Your task to perform on an android device: open app "Spotify" (install if not already installed) and enter user name: "infallible@icloud.com" and password: "implored" Image 0: 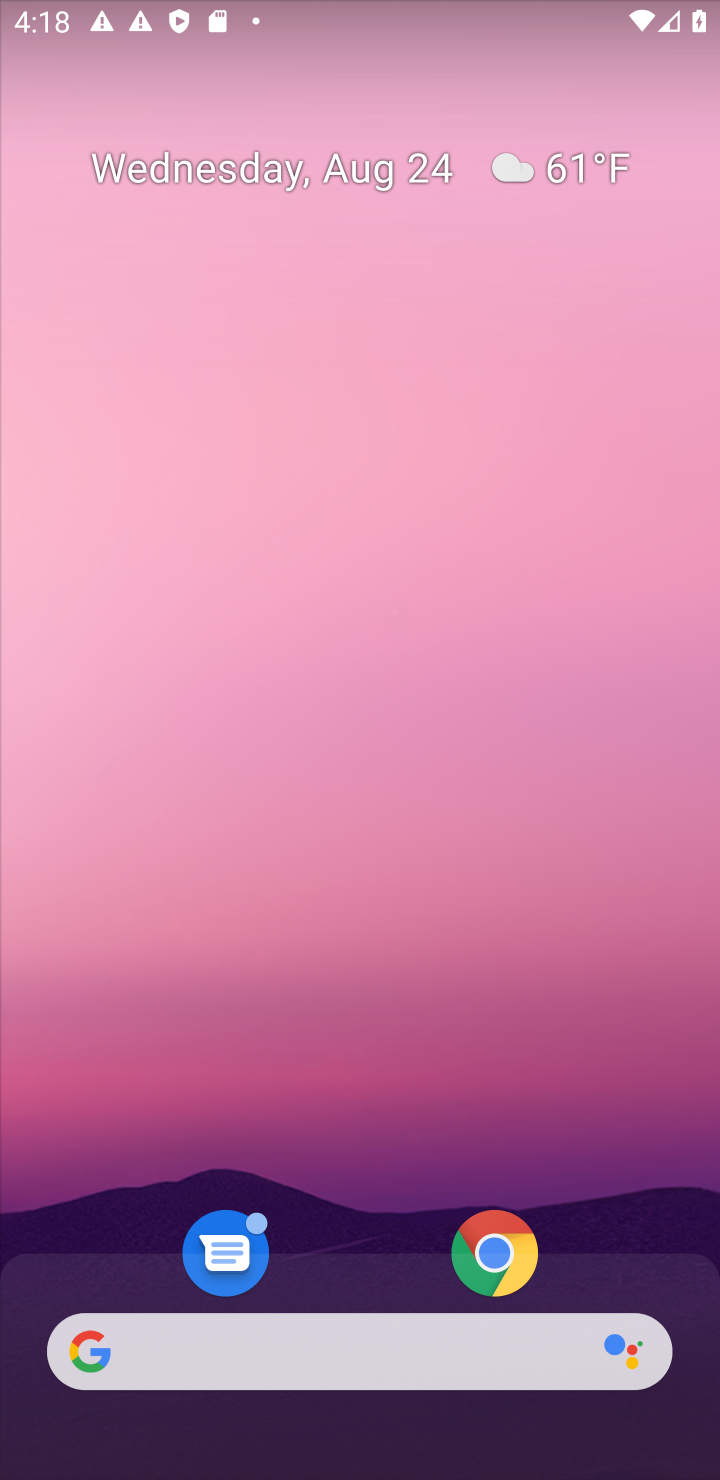
Step 0: drag from (376, 800) to (374, 251)
Your task to perform on an android device: open app "Spotify" (install if not already installed) and enter user name: "infallible@icloud.com" and password: "implored" Image 1: 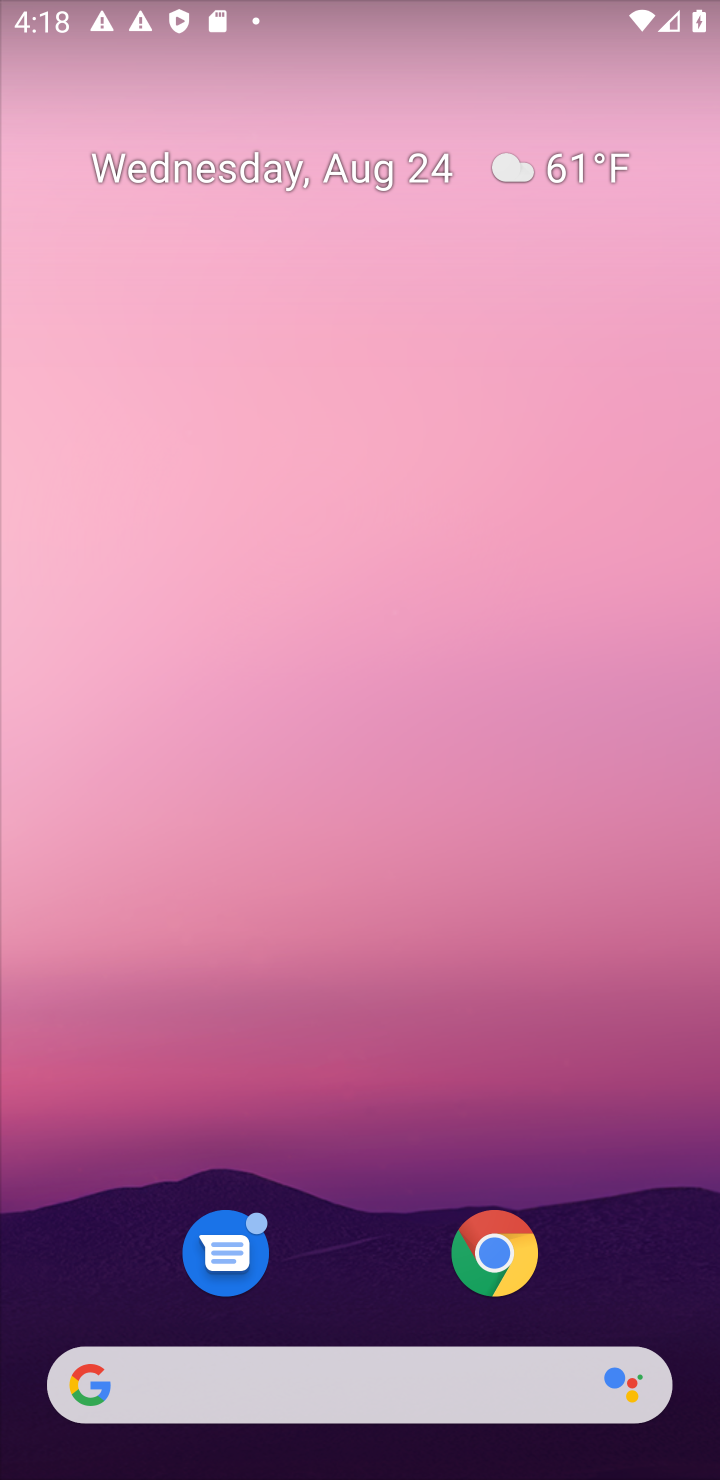
Step 1: drag from (331, 1279) to (424, 54)
Your task to perform on an android device: open app "Spotify" (install if not already installed) and enter user name: "infallible@icloud.com" and password: "implored" Image 2: 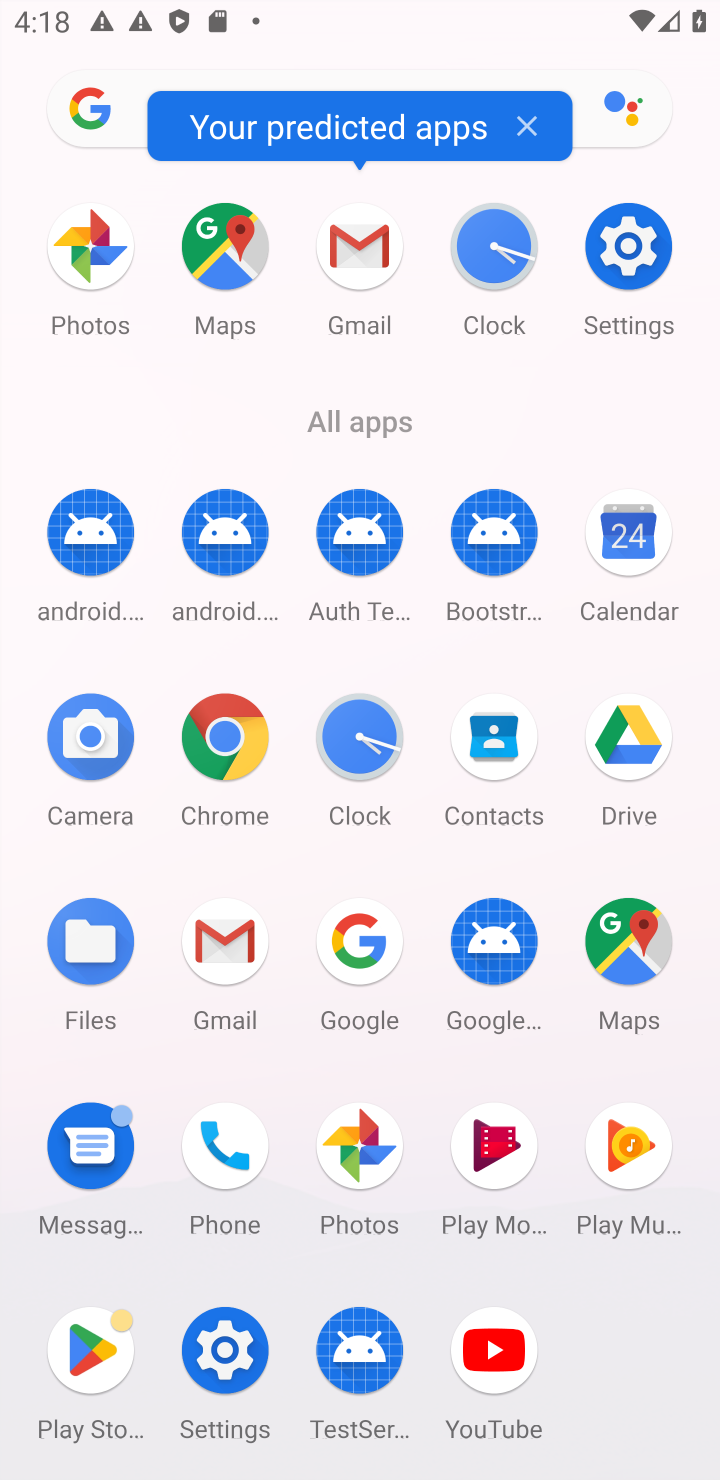
Step 2: click (103, 1349)
Your task to perform on an android device: open app "Spotify" (install if not already installed) and enter user name: "infallible@icloud.com" and password: "implored" Image 3: 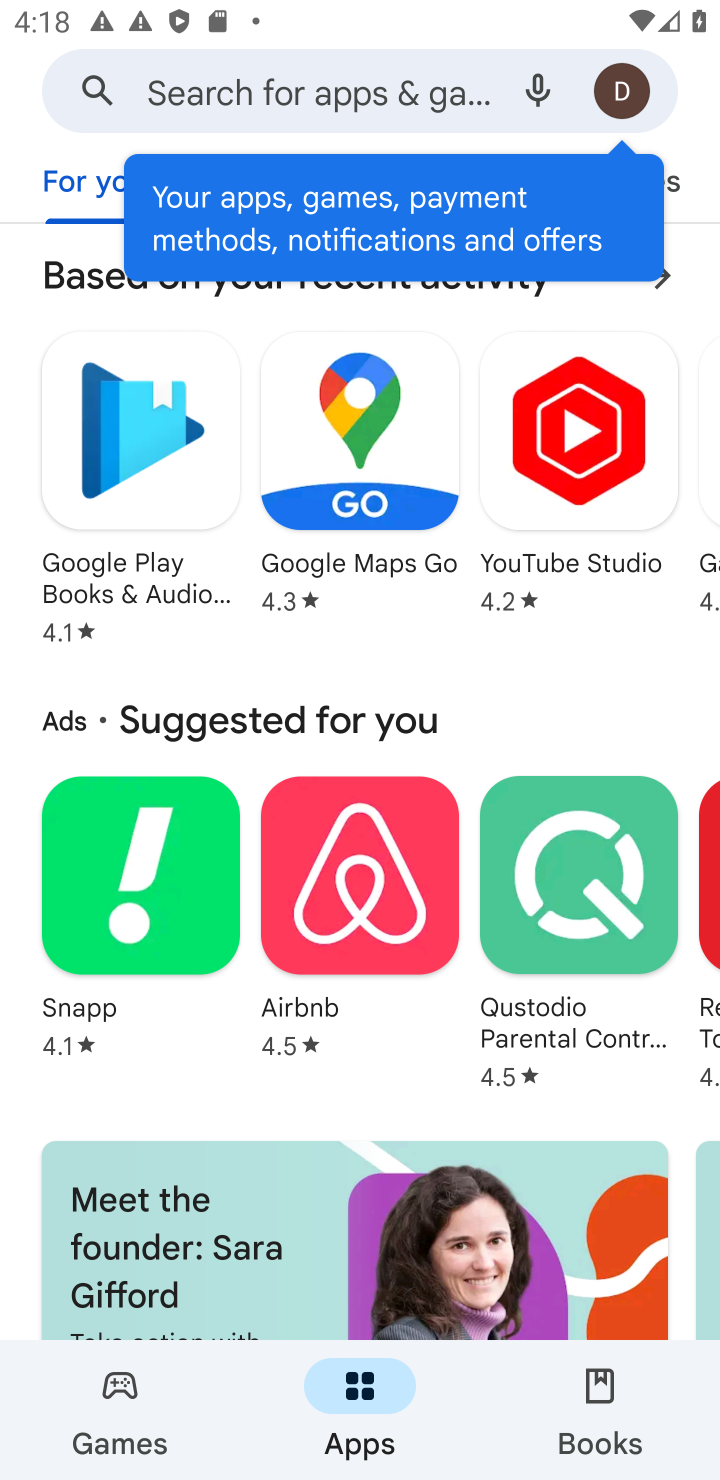
Step 3: click (365, 92)
Your task to perform on an android device: open app "Spotify" (install if not already installed) and enter user name: "infallible@icloud.com" and password: "implored" Image 4: 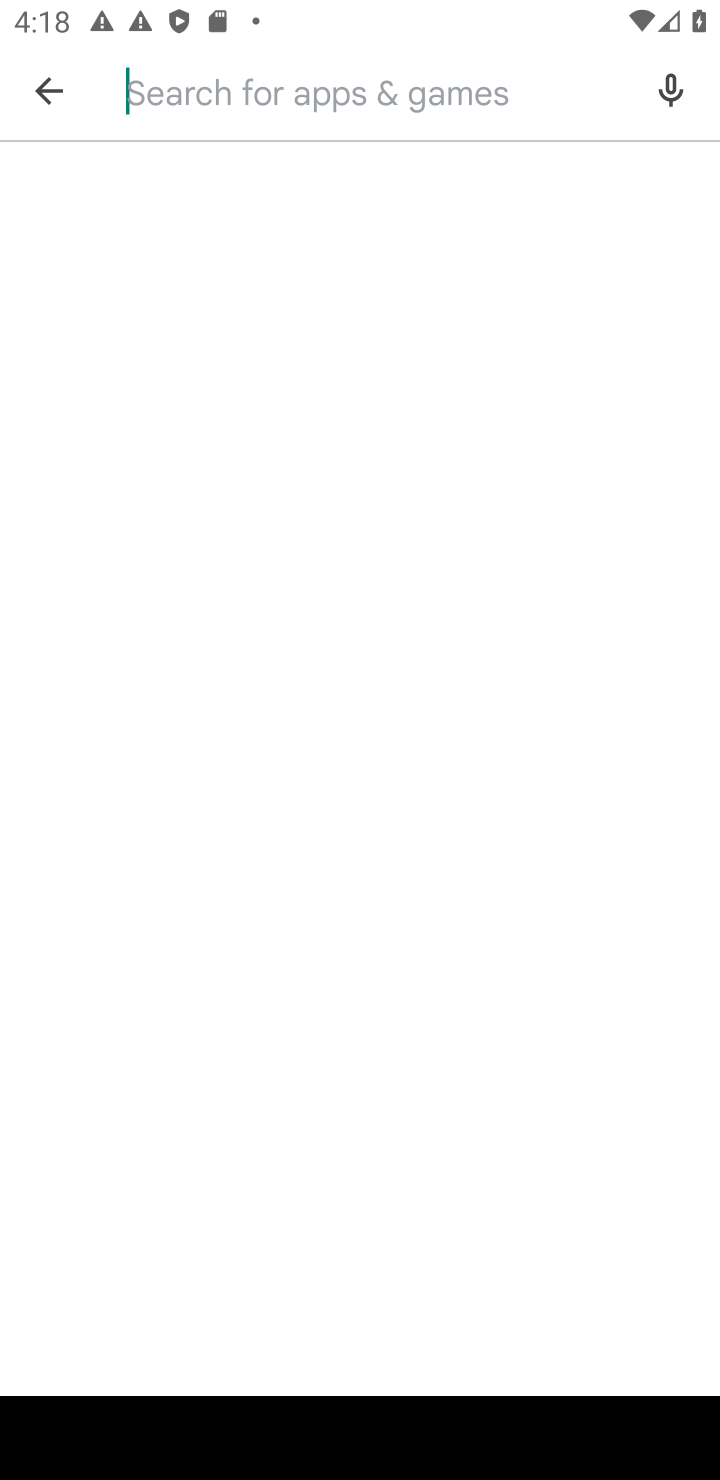
Step 4: click (316, 103)
Your task to perform on an android device: open app "Spotify" (install if not already installed) and enter user name: "infallible@icloud.com" and password: "implored" Image 5: 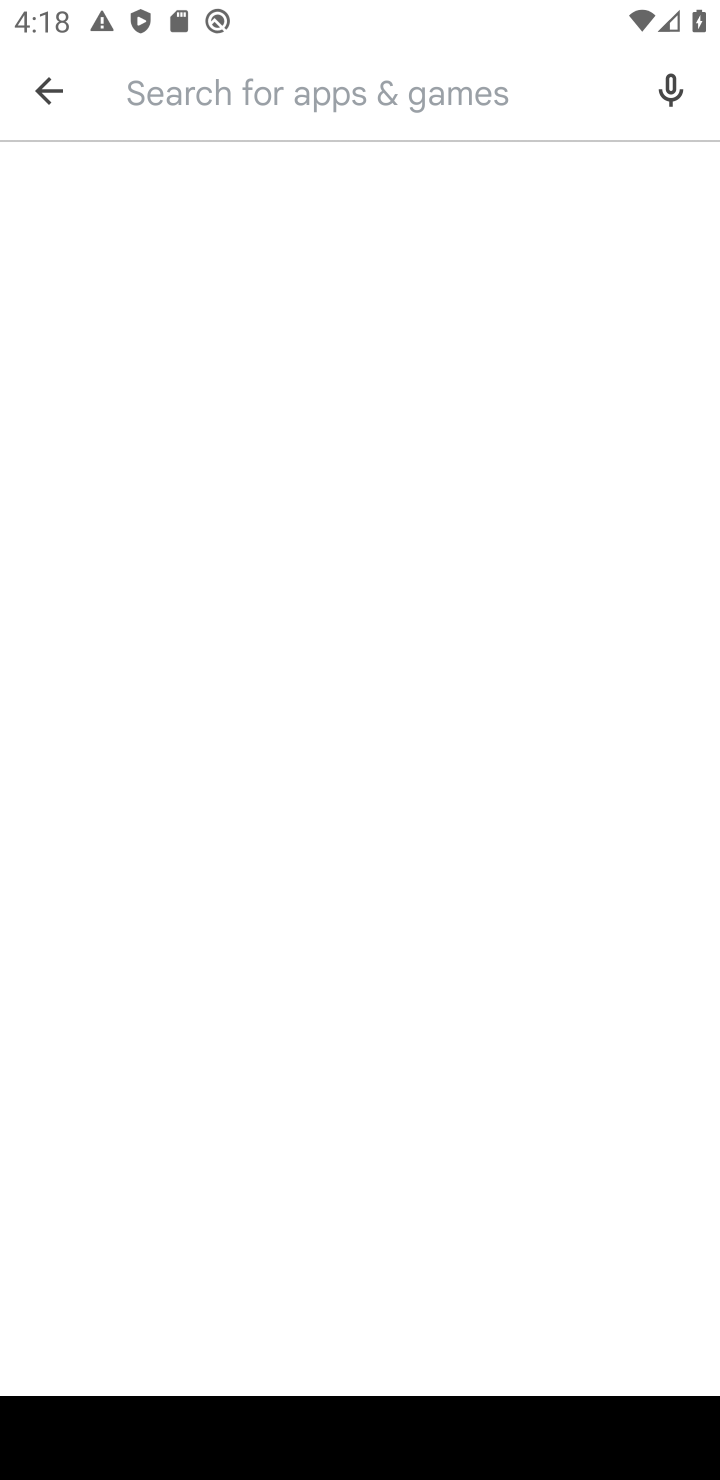
Step 5: type "spotify"
Your task to perform on an android device: open app "Spotify" (install if not already installed) and enter user name: "infallible@icloud.com" and password: "implored" Image 6: 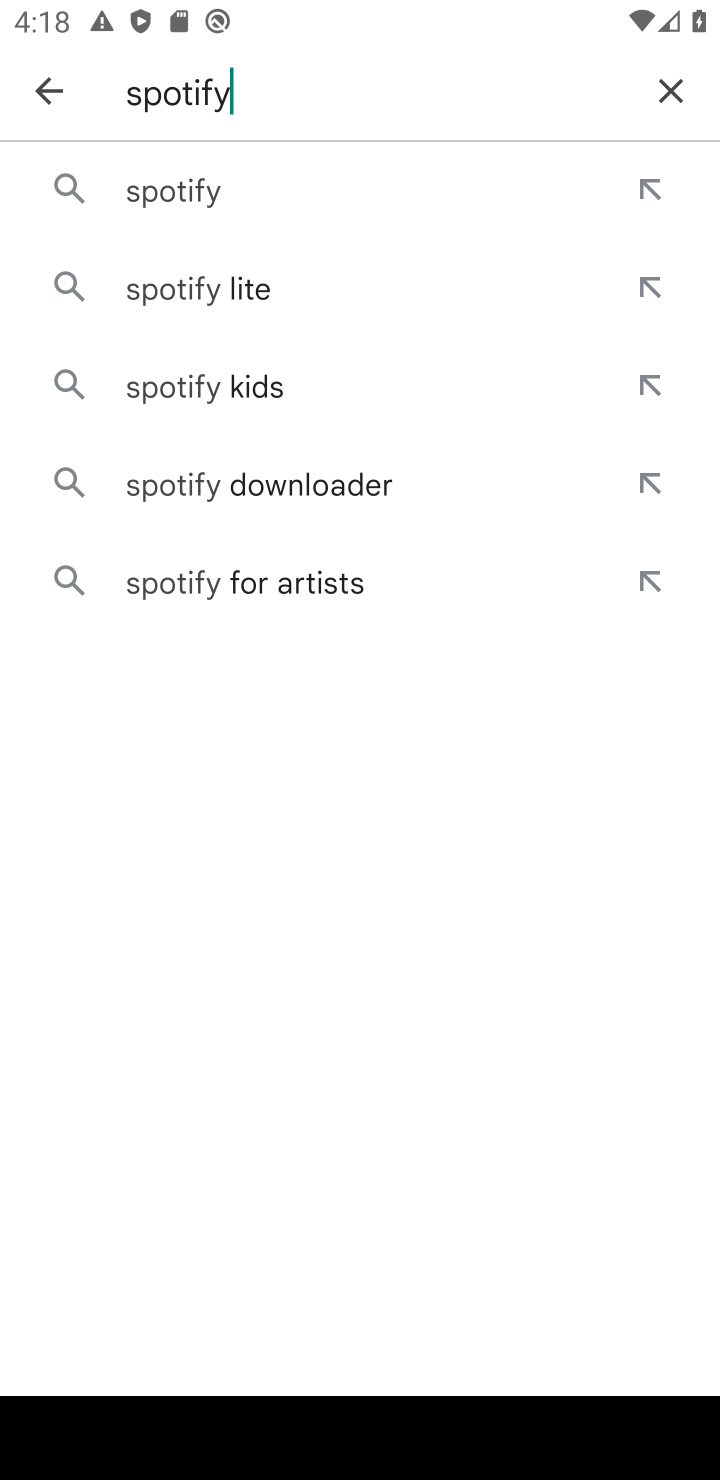
Step 6: click (147, 196)
Your task to perform on an android device: open app "Spotify" (install if not already installed) and enter user name: "infallible@icloud.com" and password: "implored" Image 7: 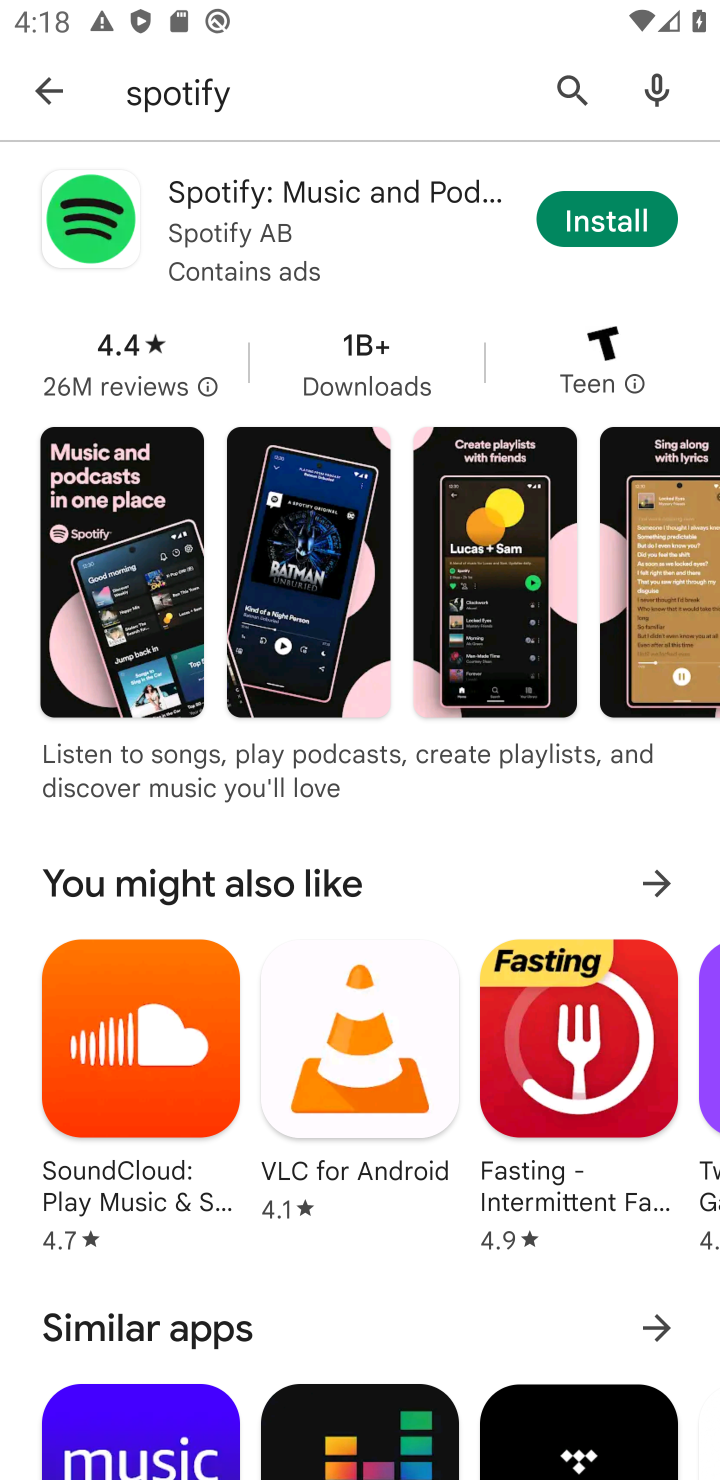
Step 7: click (625, 218)
Your task to perform on an android device: open app "Spotify" (install if not already installed) and enter user name: "infallible@icloud.com" and password: "implored" Image 8: 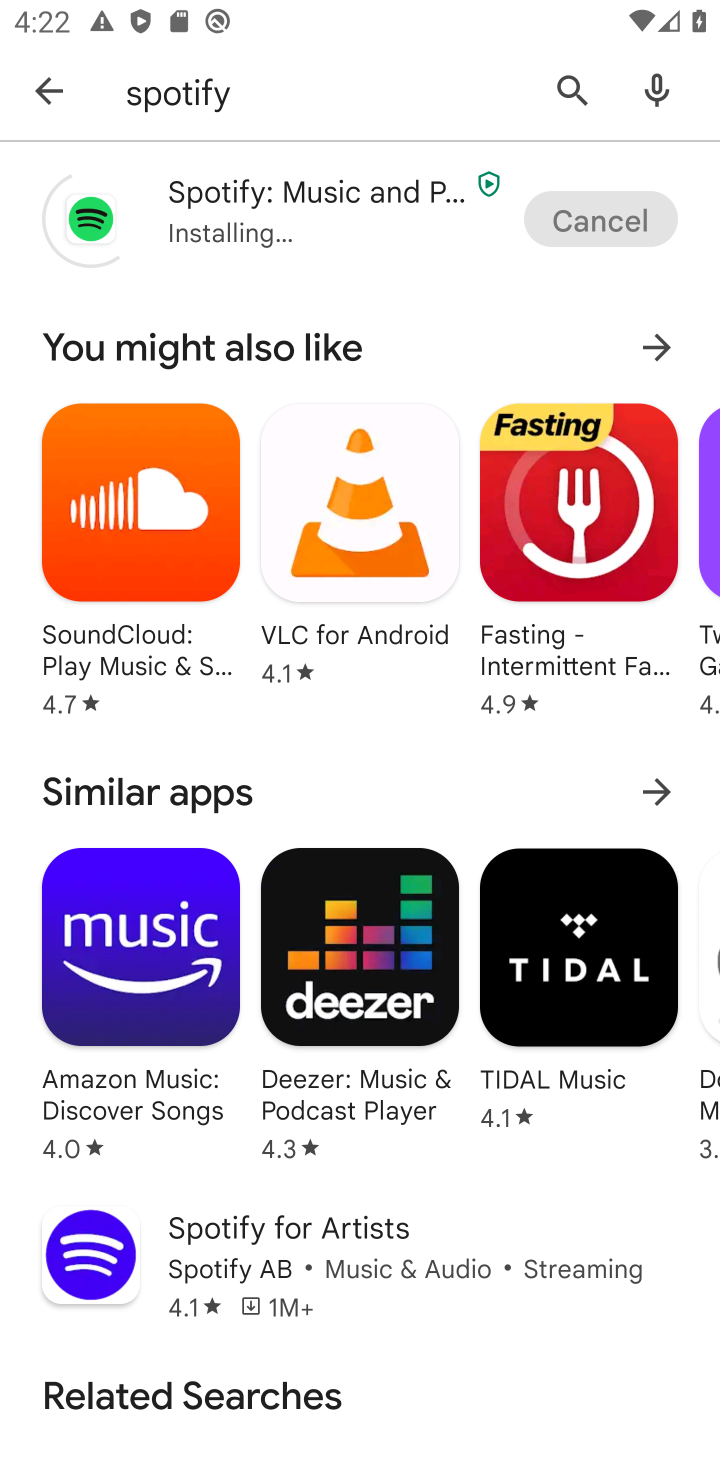
Step 8: press back button
Your task to perform on an android device: open app "Spotify" (install if not already installed) and enter user name: "infallible@icloud.com" and password: "implored" Image 9: 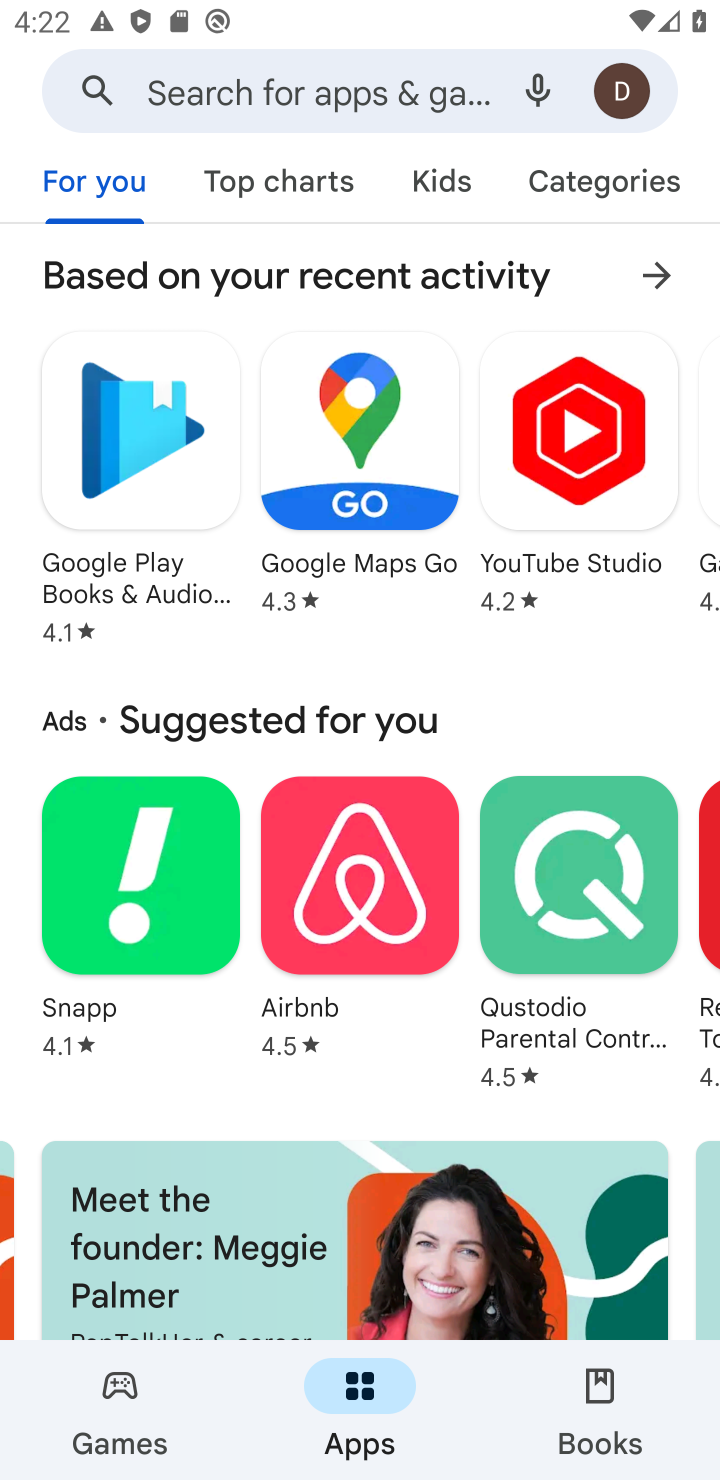
Step 9: click (275, 105)
Your task to perform on an android device: open app "Spotify" (install if not already installed) and enter user name: "infallible@icloud.com" and password: "implored" Image 10: 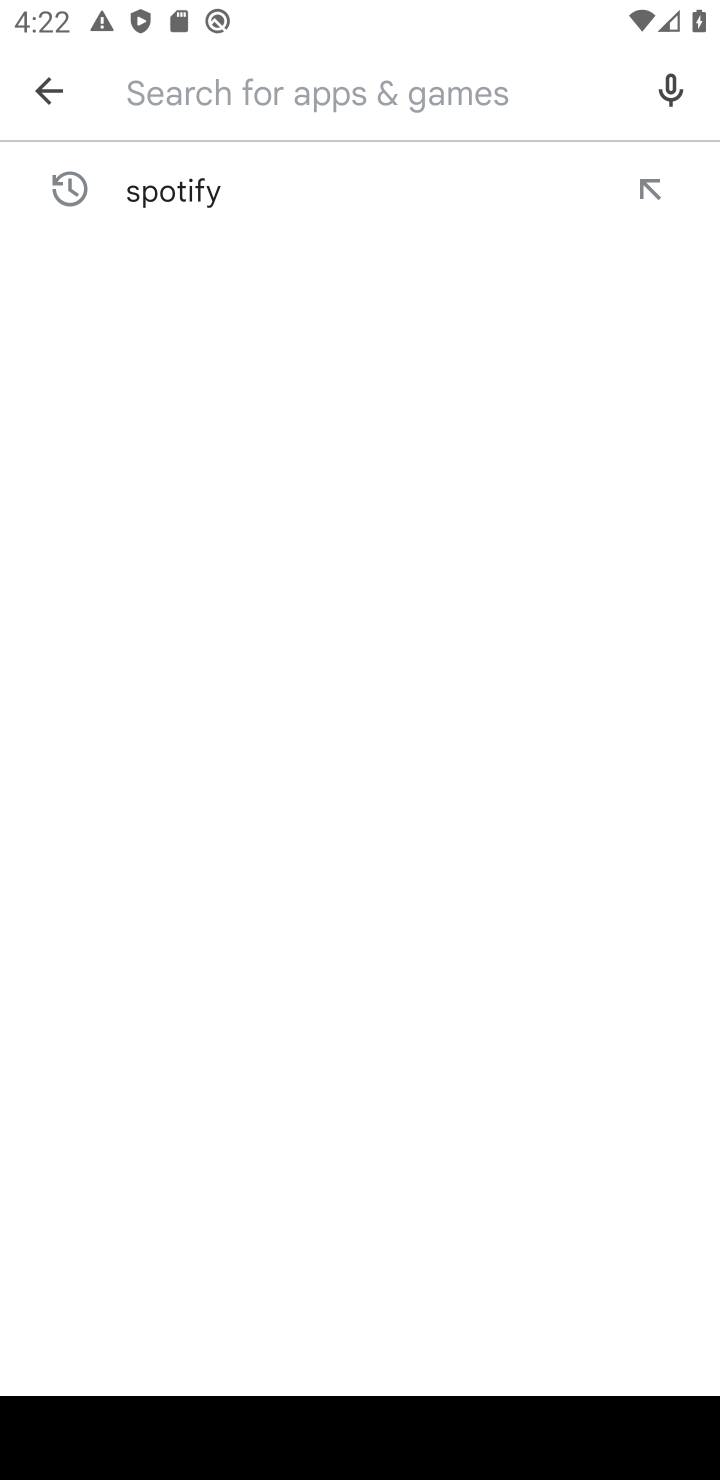
Step 10: click (136, 171)
Your task to perform on an android device: open app "Spotify" (install if not already installed) and enter user name: "infallible@icloud.com" and password: "implored" Image 11: 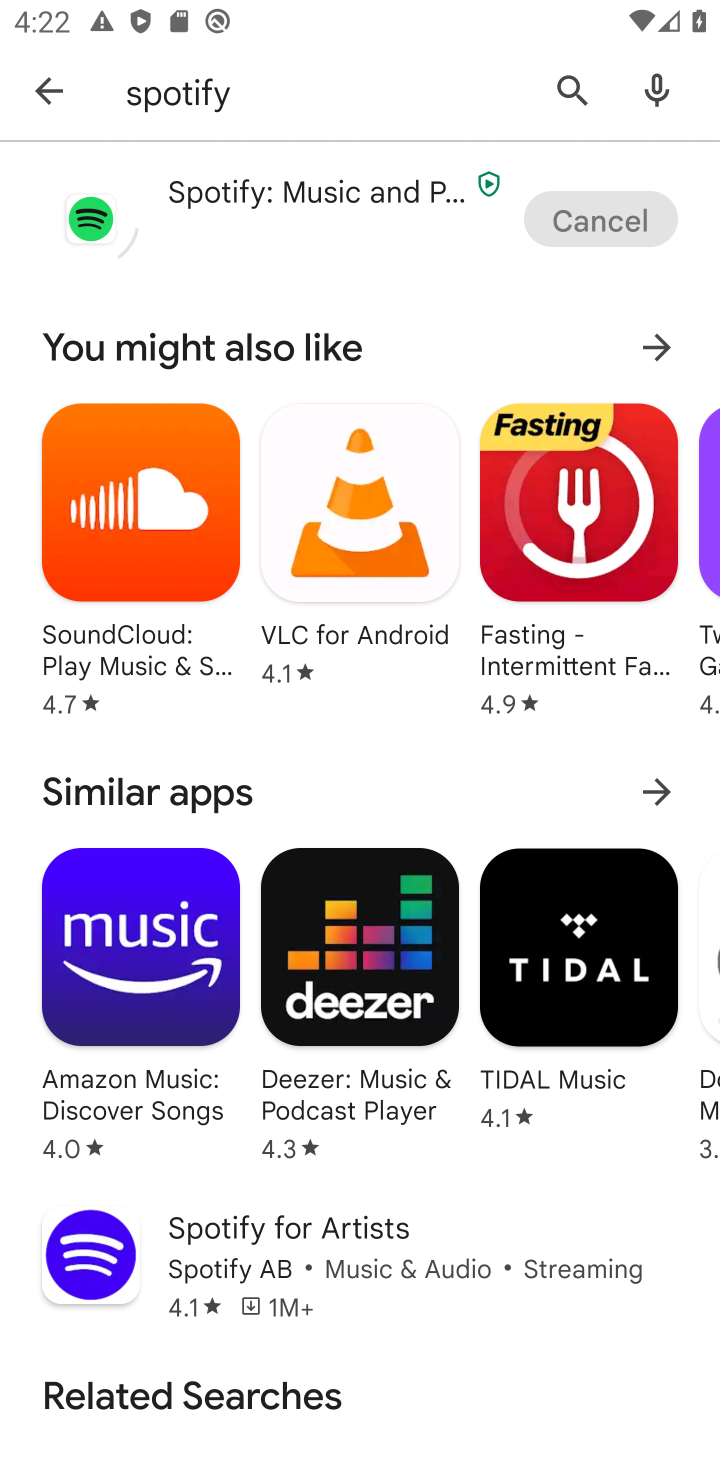
Step 11: click (319, 174)
Your task to perform on an android device: open app "Spotify" (install if not already installed) and enter user name: "infallible@icloud.com" and password: "implored" Image 12: 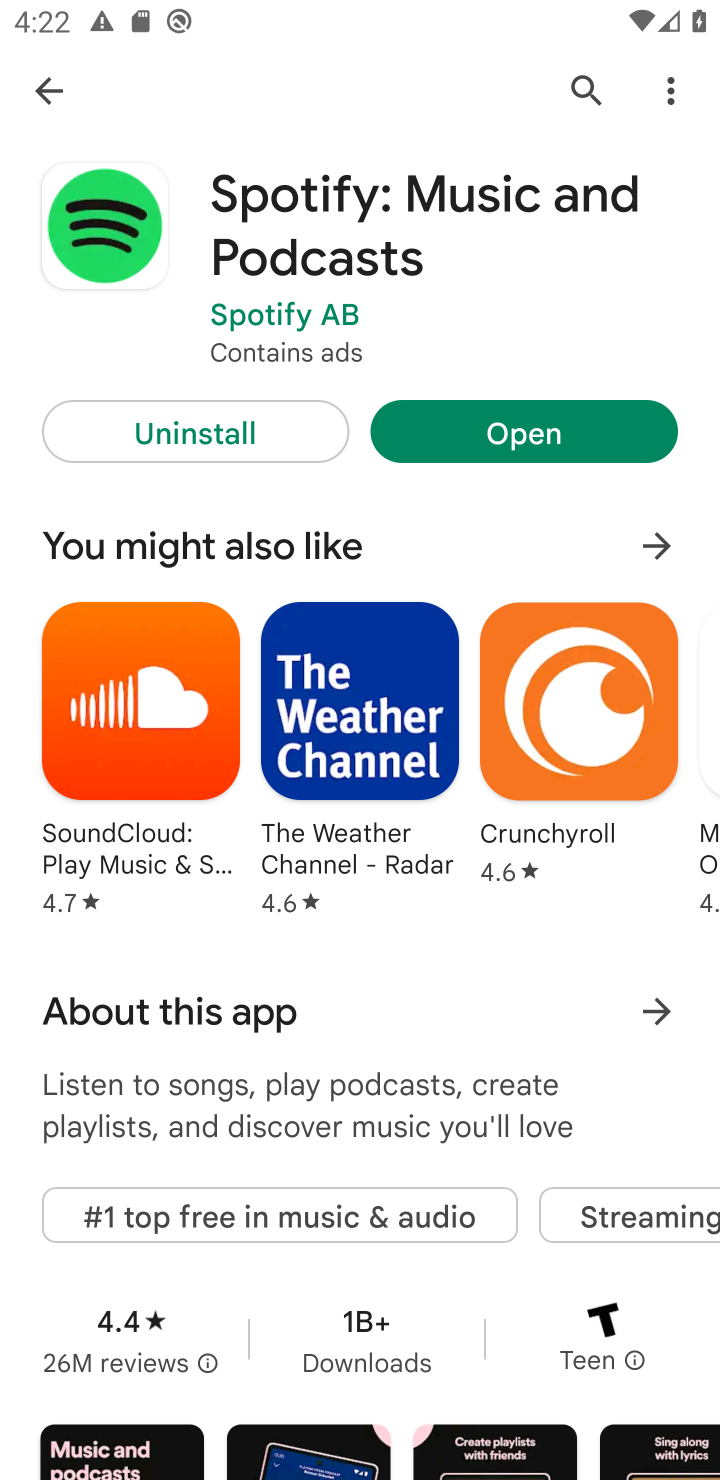
Step 12: click (538, 418)
Your task to perform on an android device: open app "Spotify" (install if not already installed) and enter user name: "infallible@icloud.com" and password: "implored" Image 13: 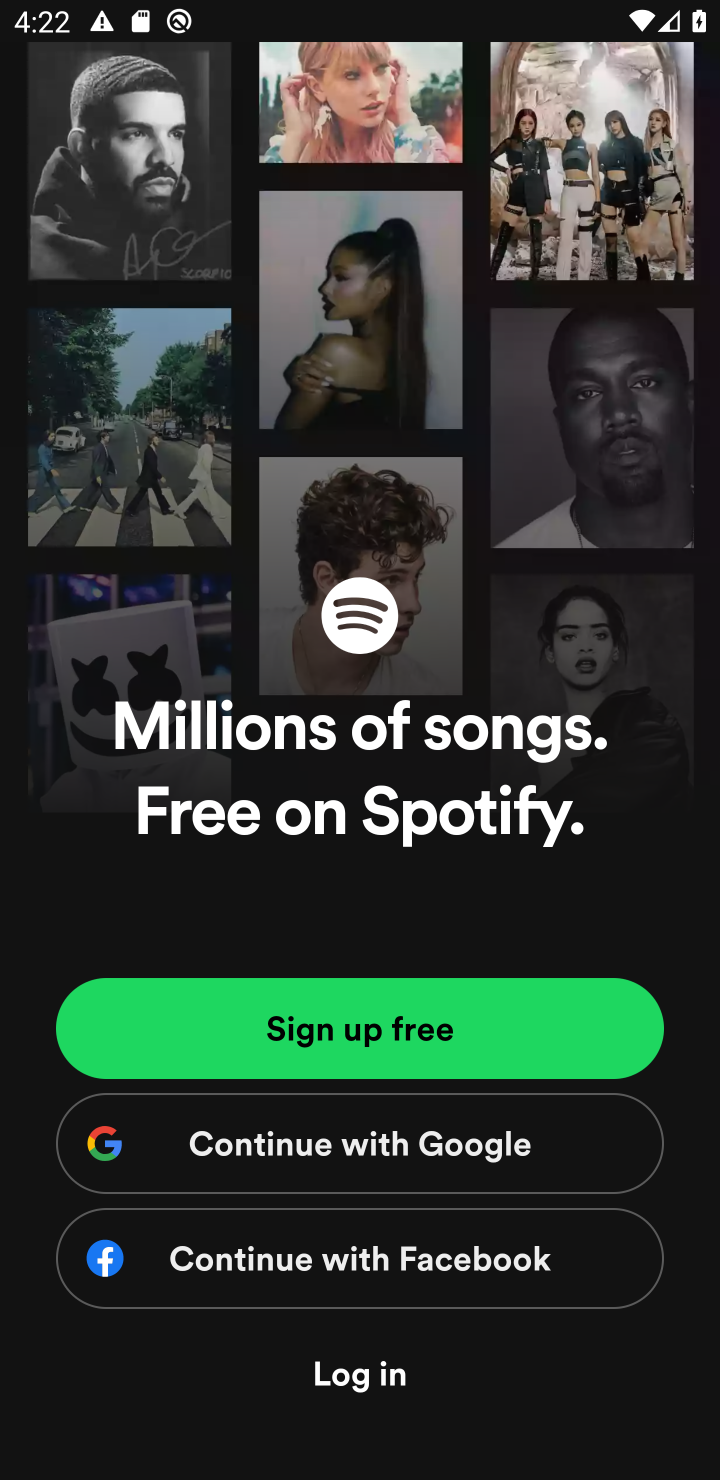
Step 13: click (367, 1388)
Your task to perform on an android device: open app "Spotify" (install if not already installed) and enter user name: "infallible@icloud.com" and password: "implored" Image 14: 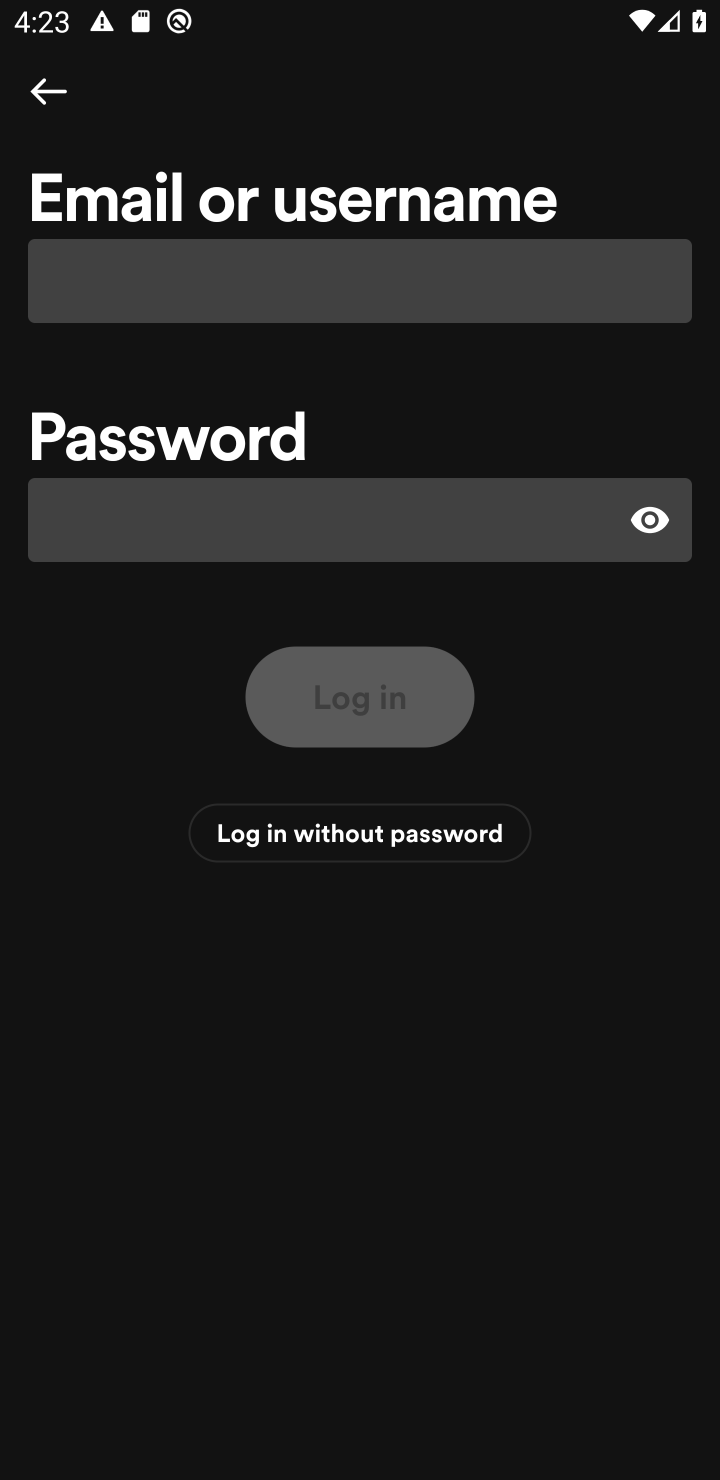
Step 14: click (197, 279)
Your task to perform on an android device: open app "Spotify" (install if not already installed) and enter user name: "infallible@icloud.com" and password: "implored" Image 15: 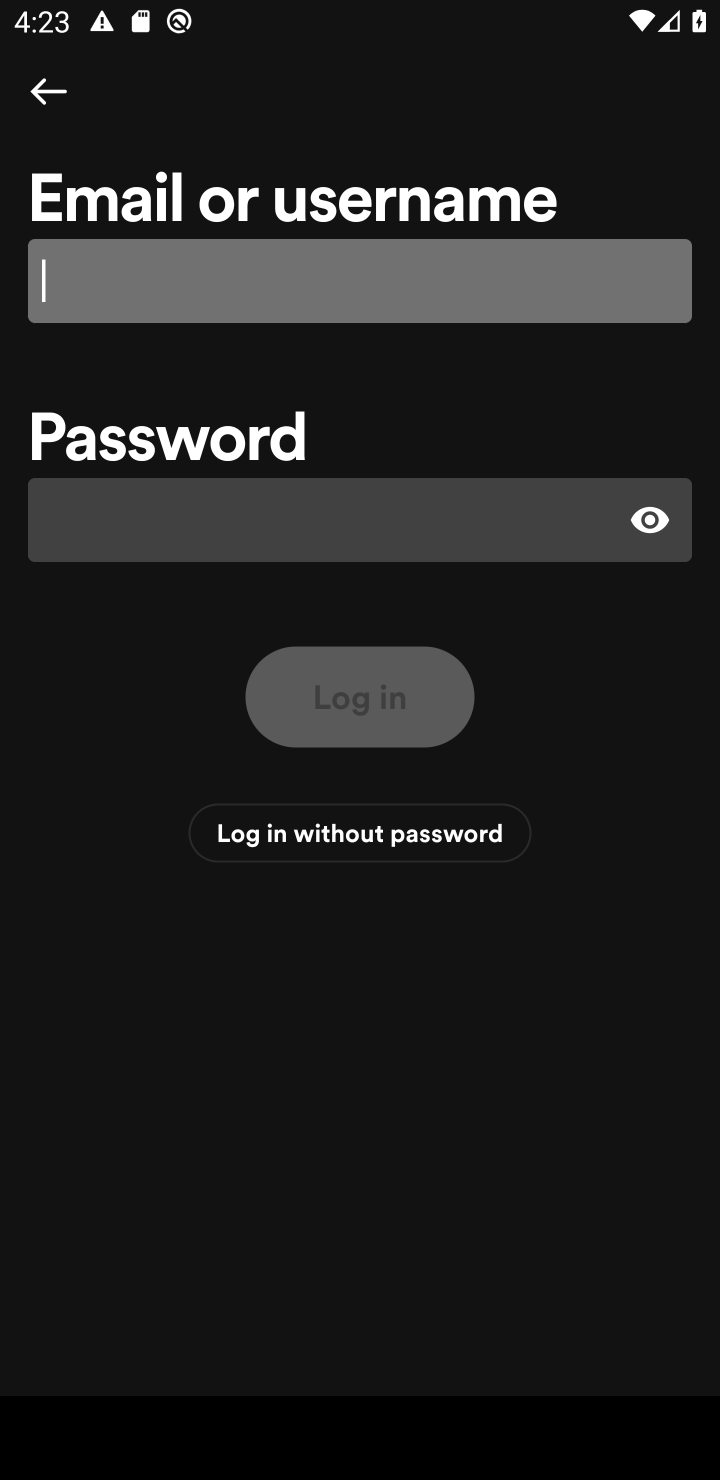
Step 15: click (310, 250)
Your task to perform on an android device: open app "Spotify" (install if not already installed) and enter user name: "infallible@icloud.com" and password: "implored" Image 16: 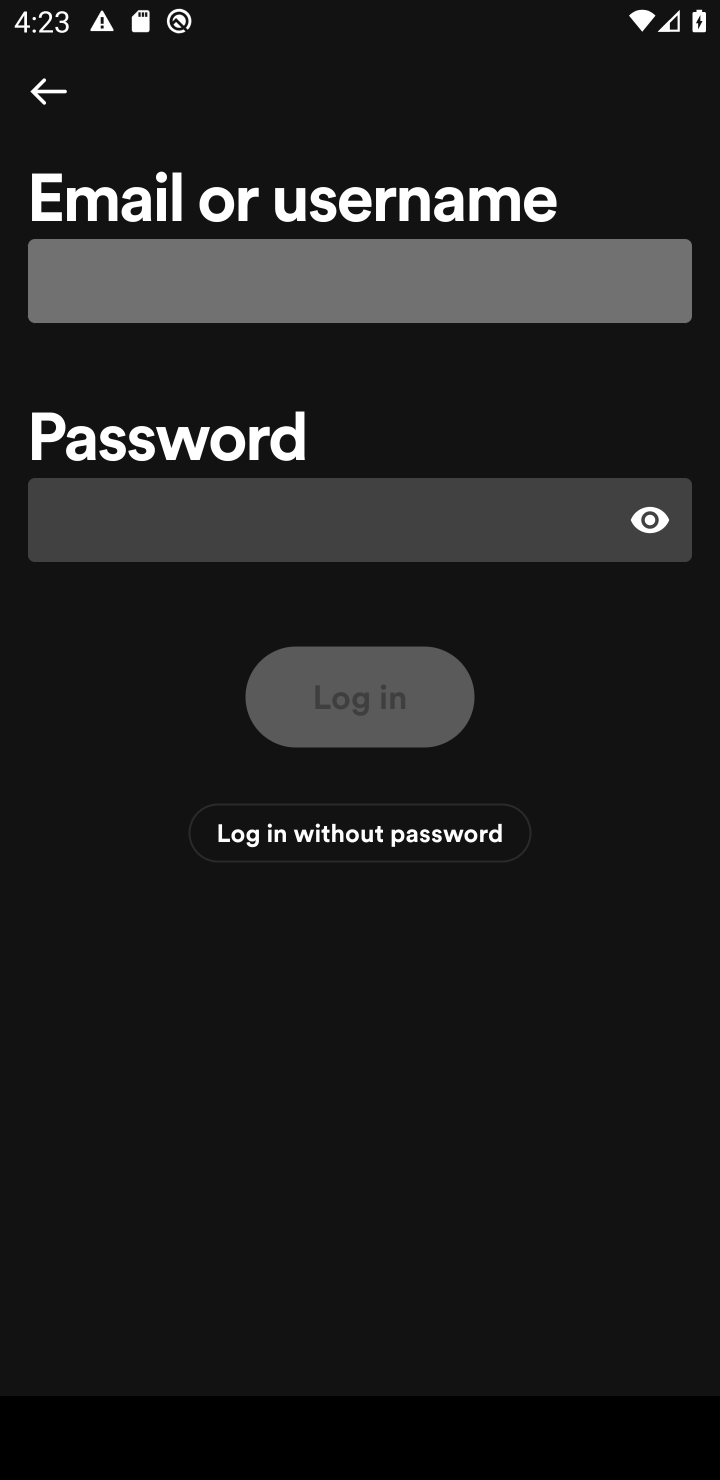
Step 16: type "infallible@icloud.com"
Your task to perform on an android device: open app "Spotify" (install if not already installed) and enter user name: "infallible@icloud.com" and password: "implored" Image 17: 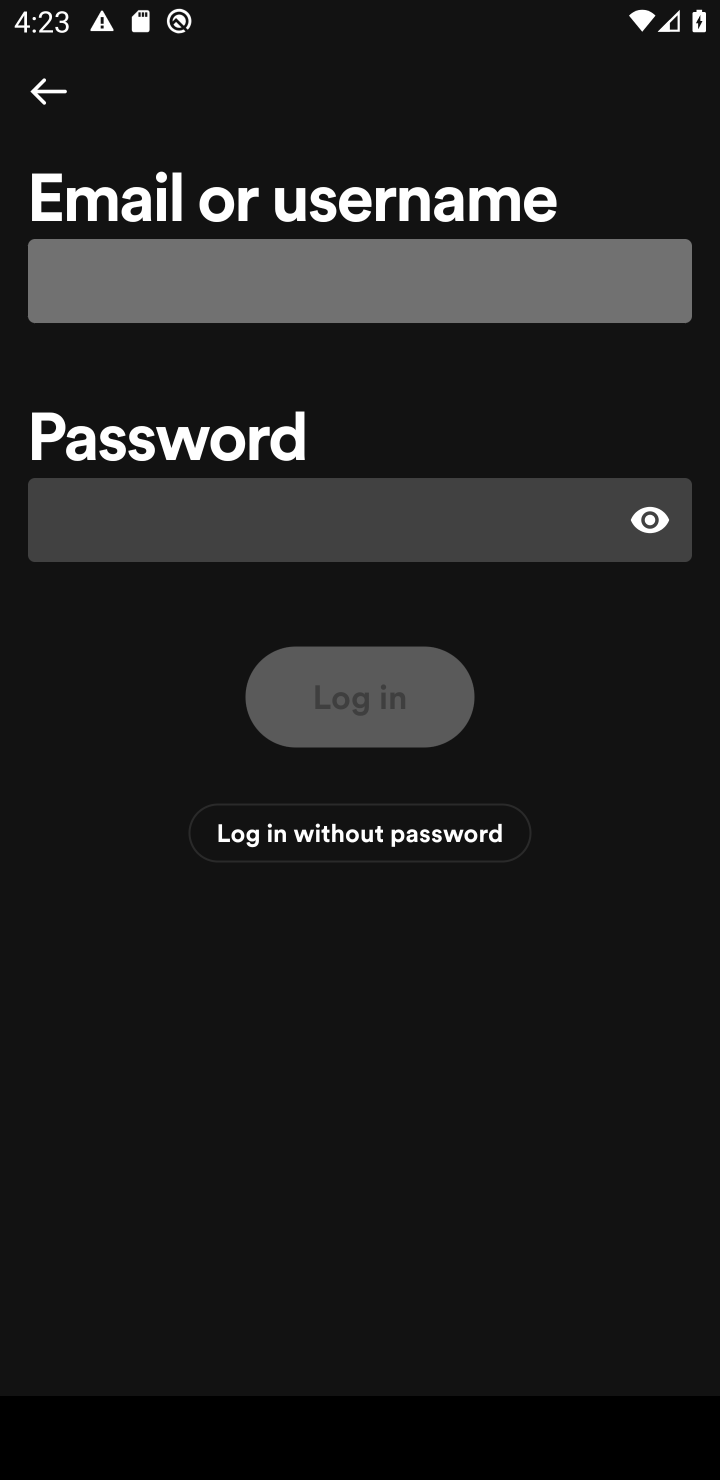
Step 17: click (460, 1125)
Your task to perform on an android device: open app "Spotify" (install if not already installed) and enter user name: "infallible@icloud.com" and password: "implored" Image 18: 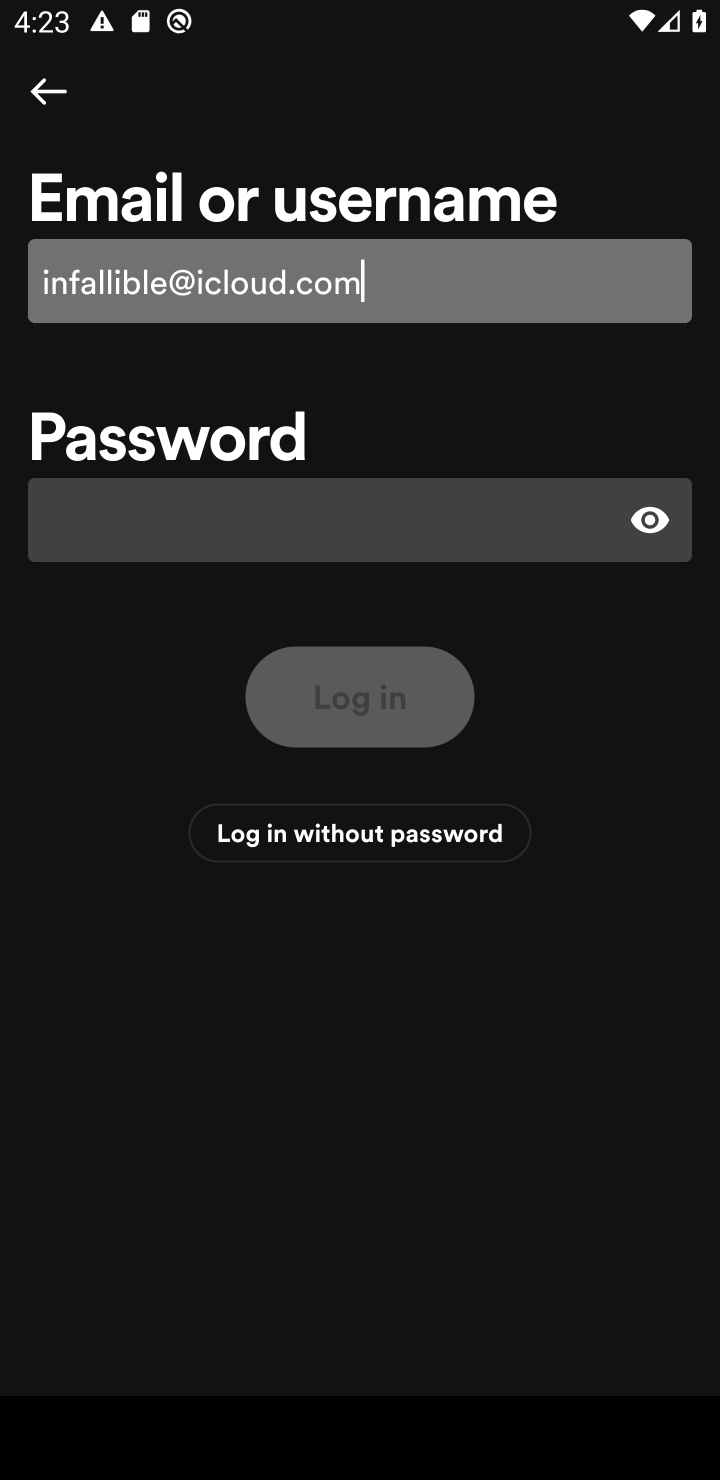
Step 18: click (113, 535)
Your task to perform on an android device: open app "Spotify" (install if not already installed) and enter user name: "infallible@icloud.com" and password: "implored" Image 19: 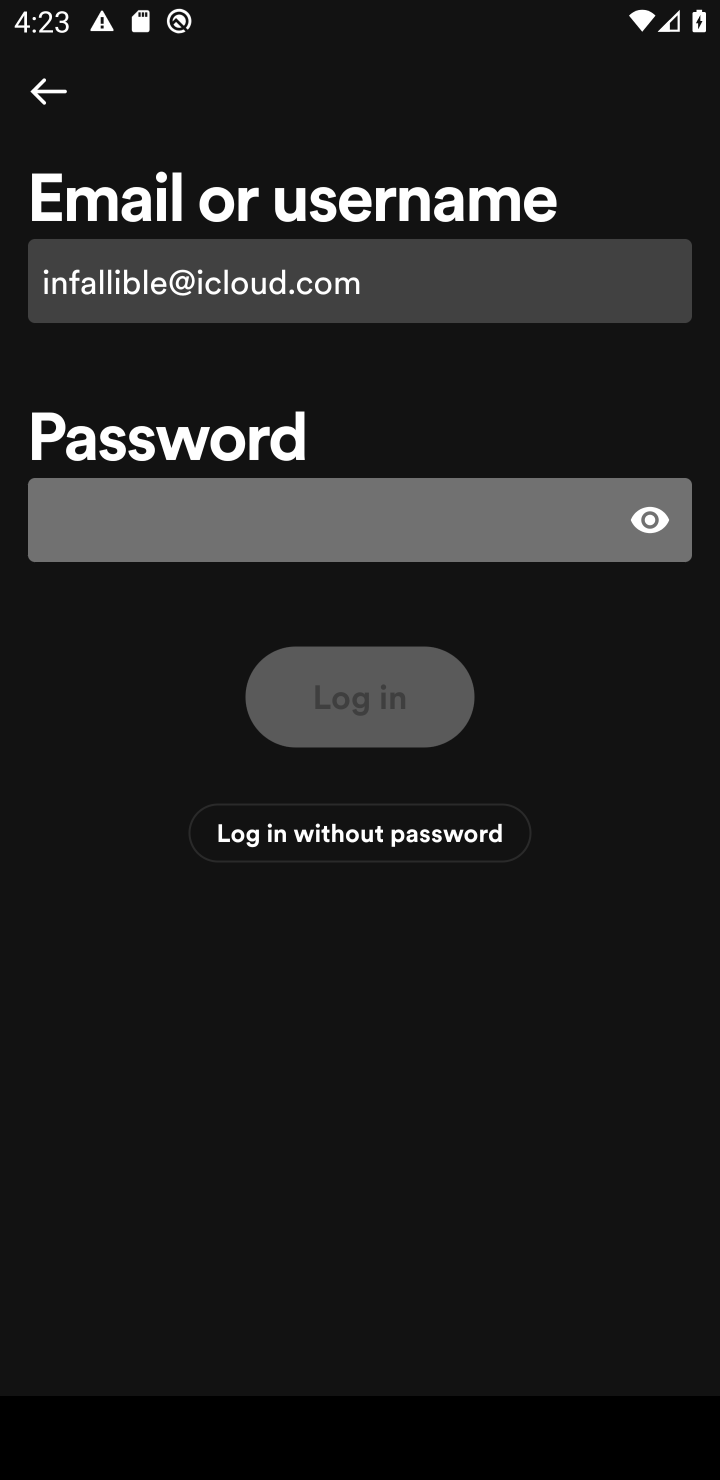
Step 19: click (341, 535)
Your task to perform on an android device: open app "Spotify" (install if not already installed) and enter user name: "infallible@icloud.com" and password: "implored" Image 20: 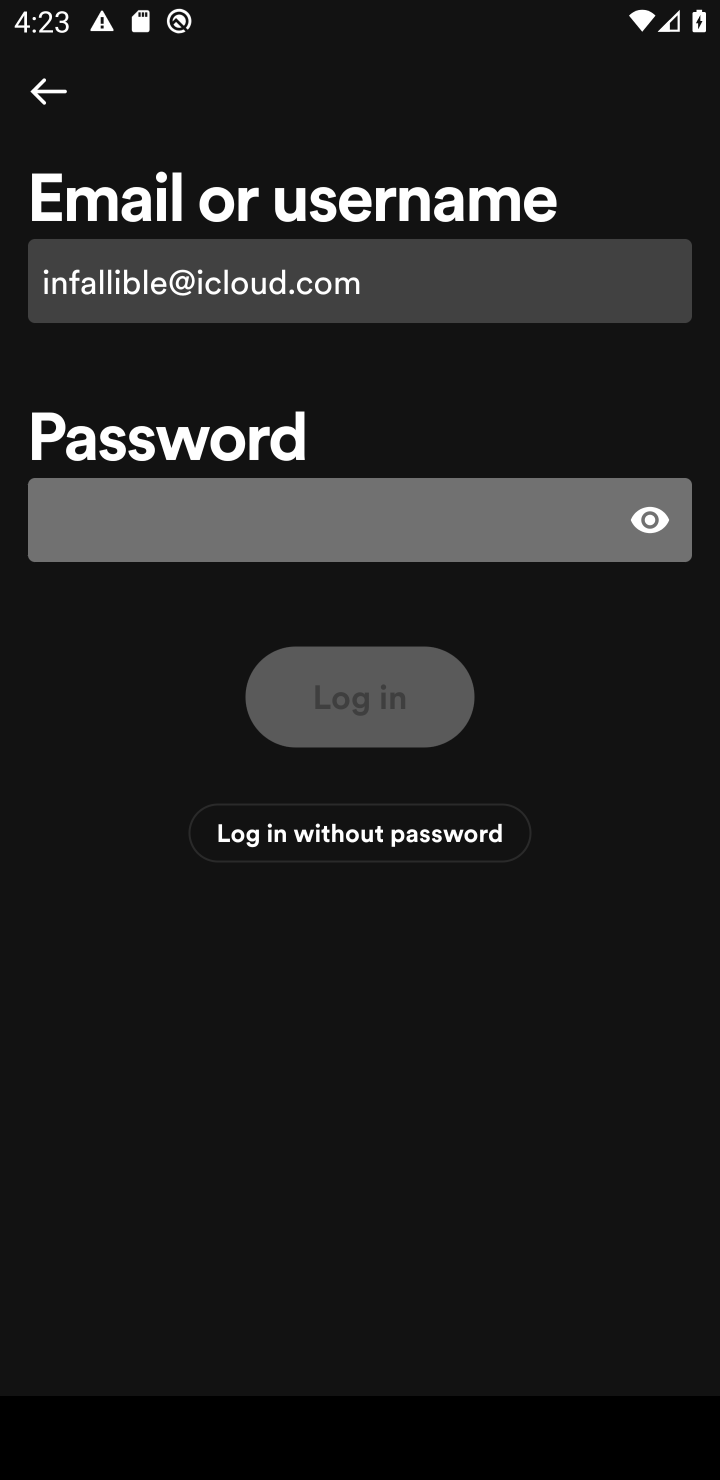
Step 20: type "implored"
Your task to perform on an android device: open app "Spotify" (install if not already installed) and enter user name: "infallible@icloud.com" and password: "implored" Image 21: 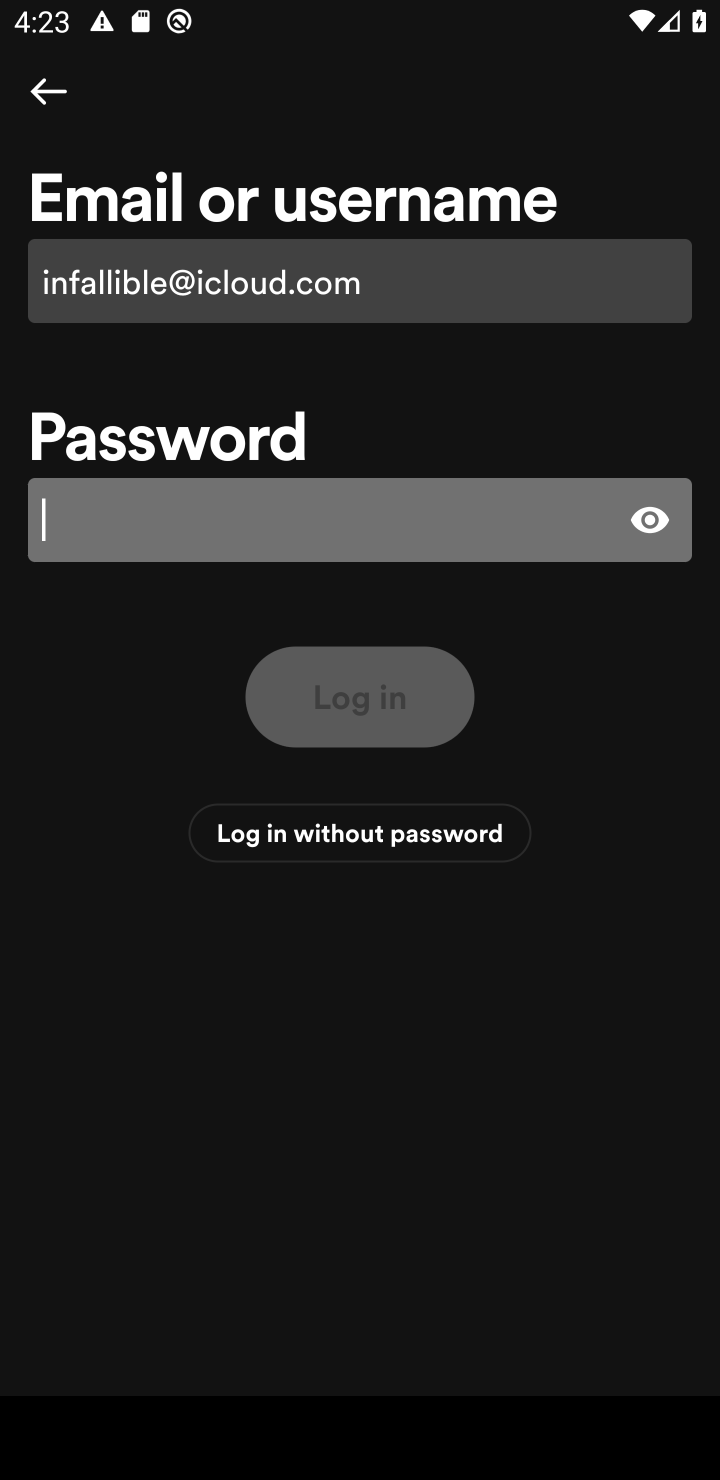
Step 21: click (485, 1201)
Your task to perform on an android device: open app "Spotify" (install if not already installed) and enter user name: "infallible@icloud.com" and password: "implored" Image 22: 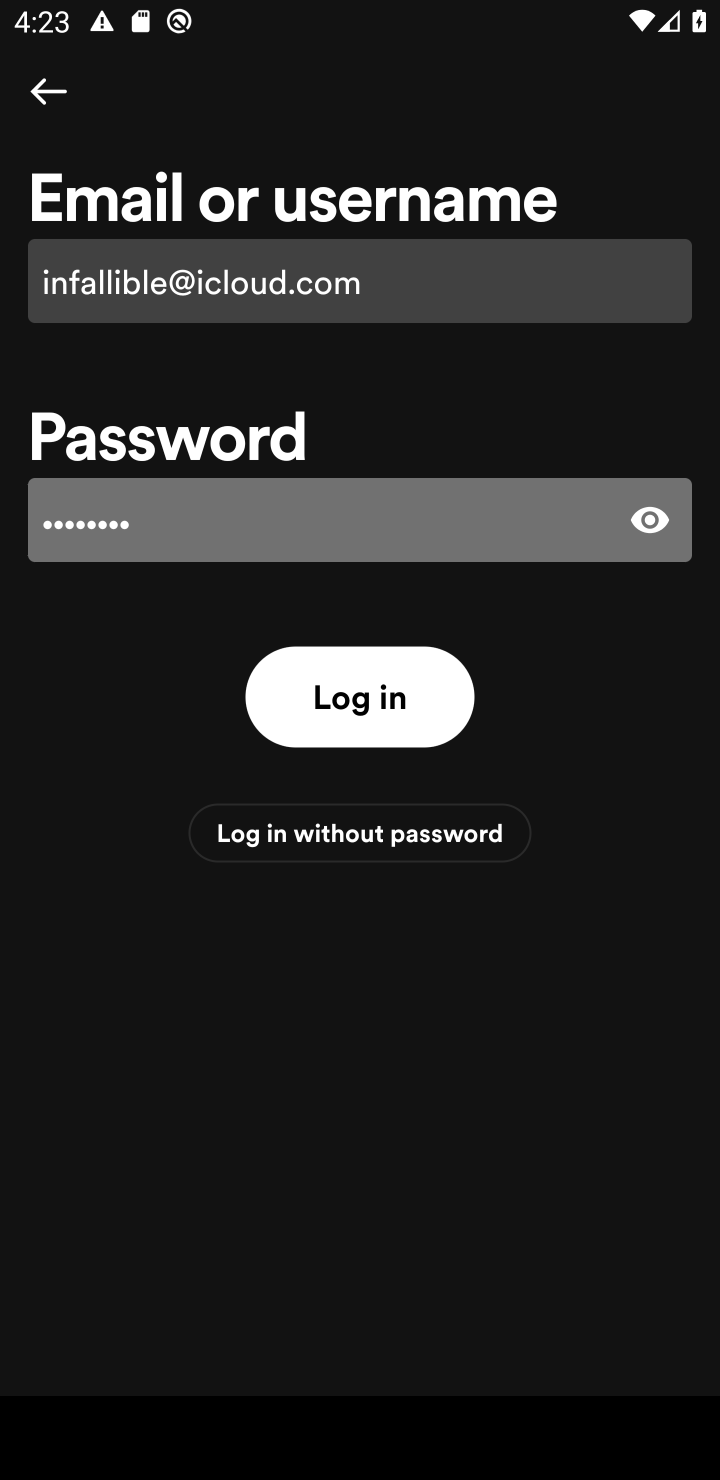
Step 22: task complete